Your task to perform on an android device: refresh tabs in the chrome app Image 0: 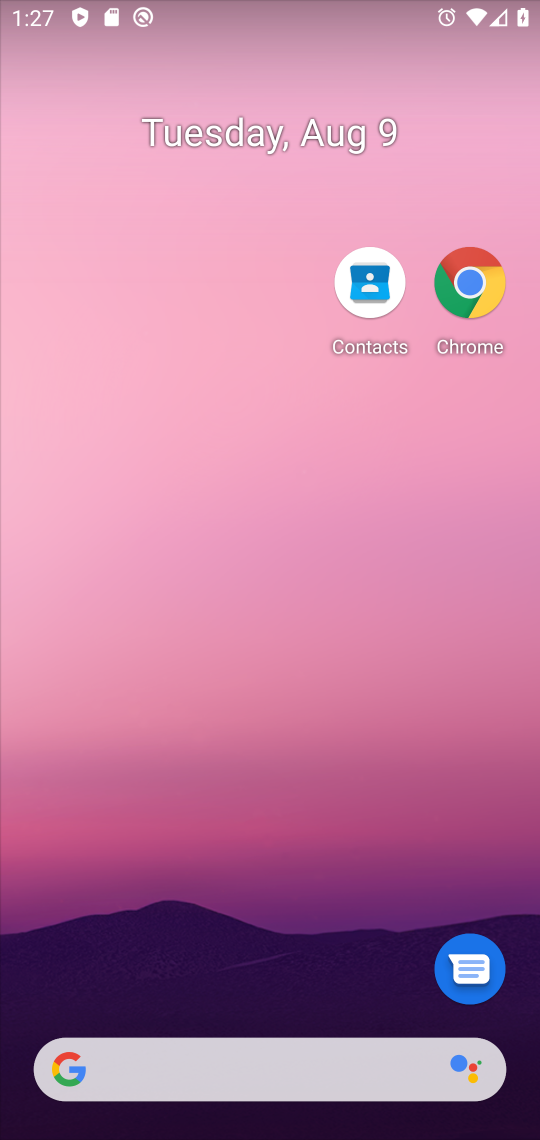
Step 0: click (281, 308)
Your task to perform on an android device: refresh tabs in the chrome app Image 1: 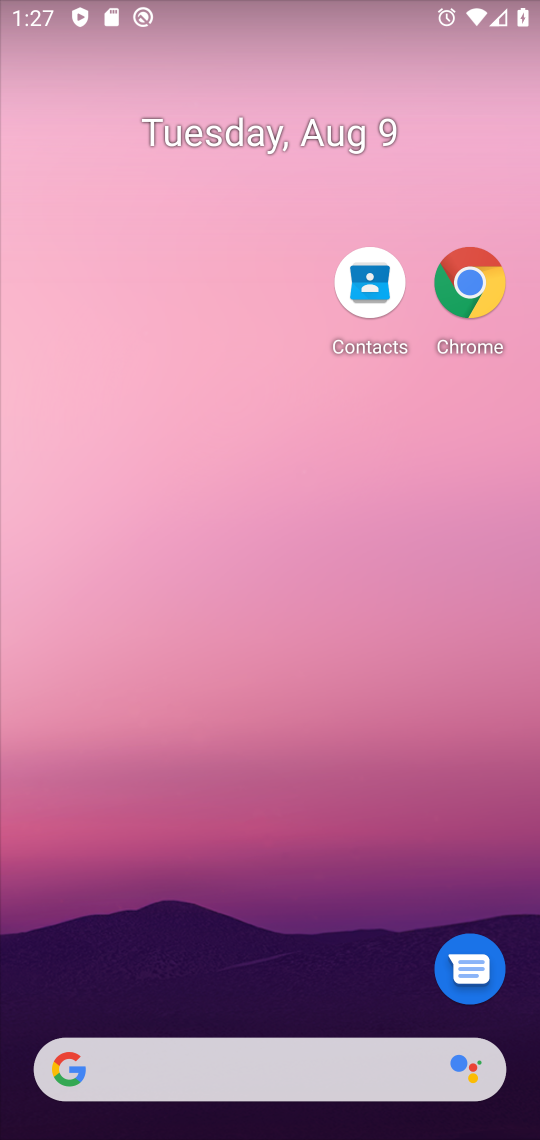
Step 1: click (473, 285)
Your task to perform on an android device: refresh tabs in the chrome app Image 2: 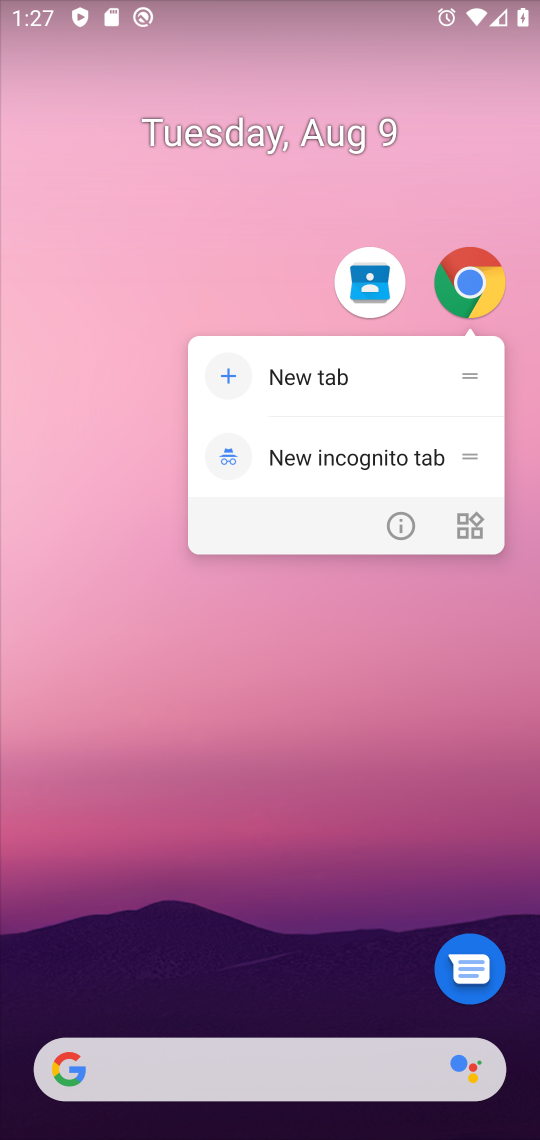
Step 2: click (407, 511)
Your task to perform on an android device: refresh tabs in the chrome app Image 3: 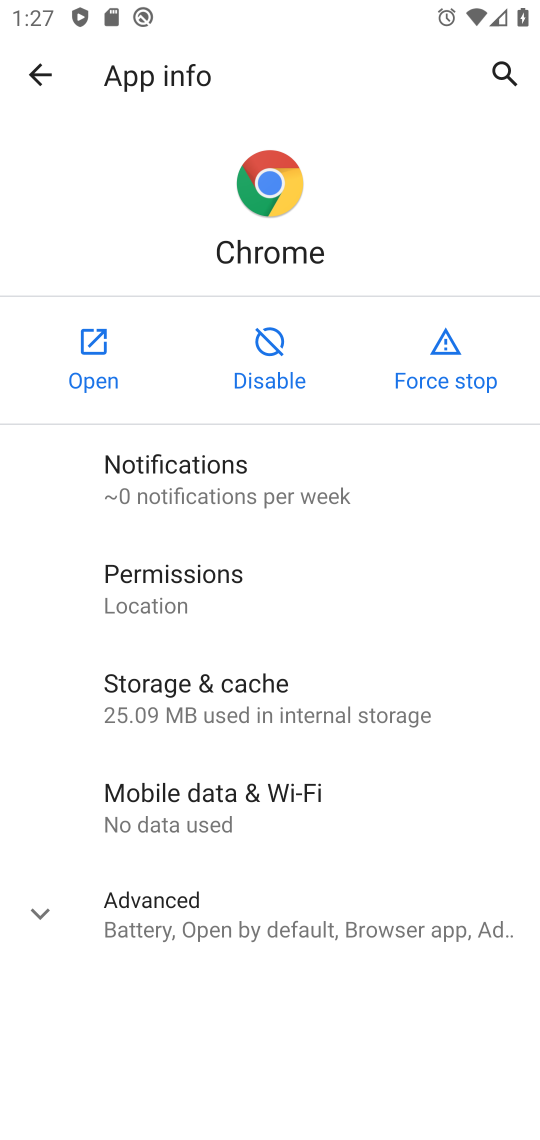
Step 3: click (105, 356)
Your task to perform on an android device: refresh tabs in the chrome app Image 4: 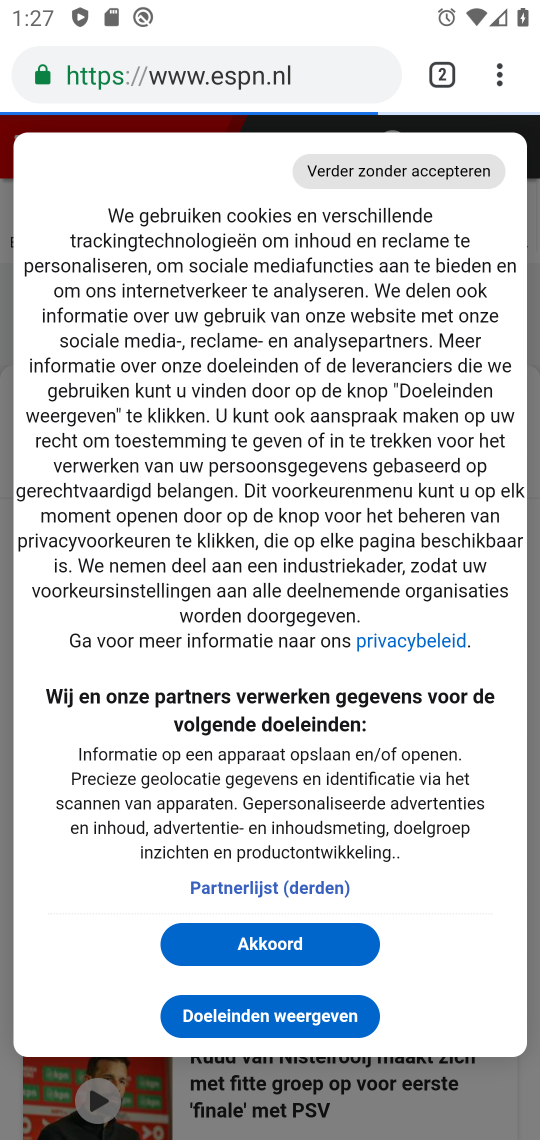
Step 4: drag from (285, 727) to (287, 388)
Your task to perform on an android device: refresh tabs in the chrome app Image 5: 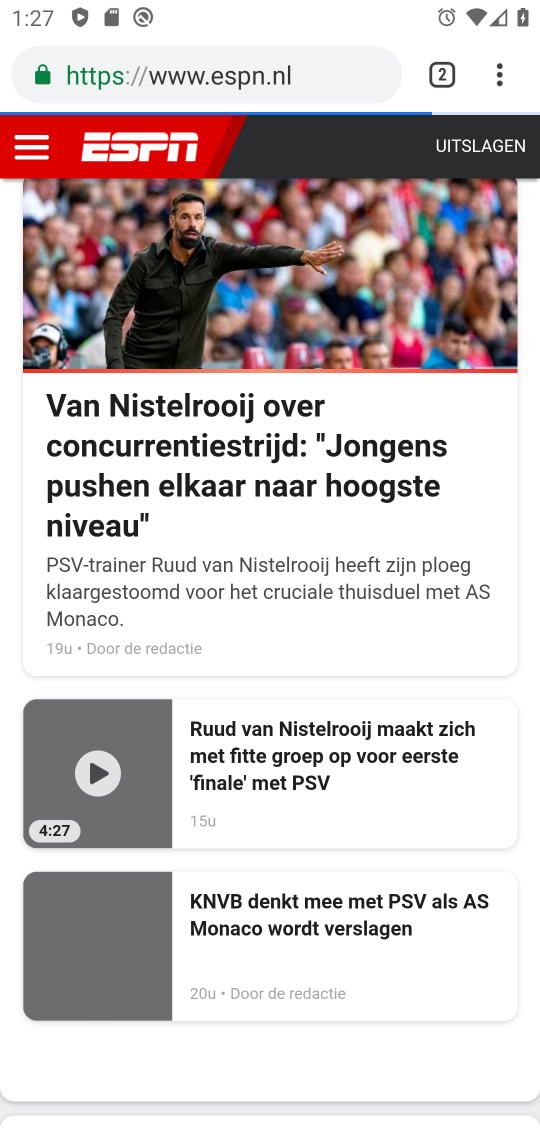
Step 5: click (500, 61)
Your task to perform on an android device: refresh tabs in the chrome app Image 6: 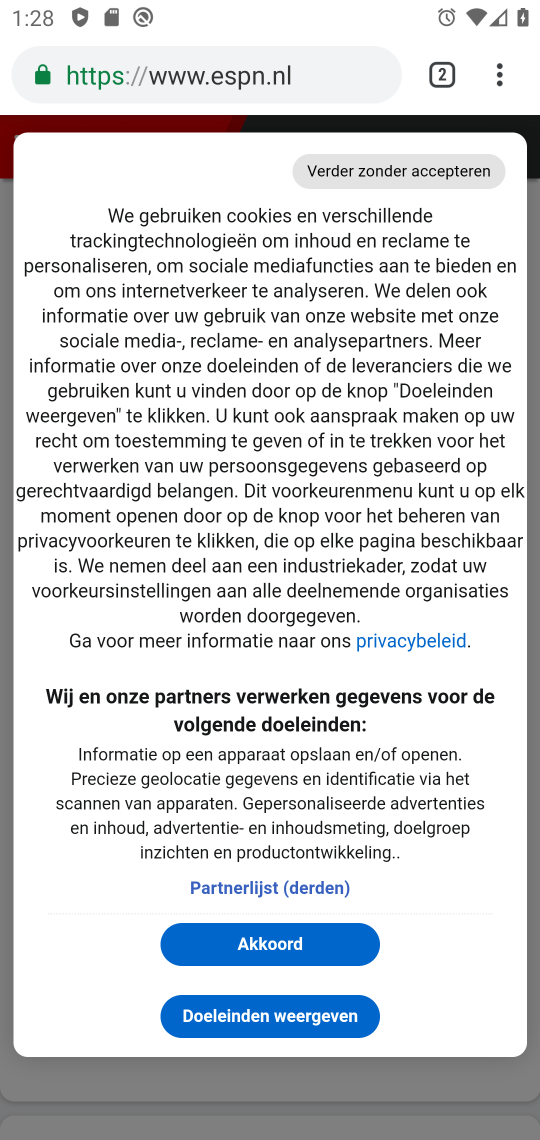
Step 6: click (492, 65)
Your task to perform on an android device: refresh tabs in the chrome app Image 7: 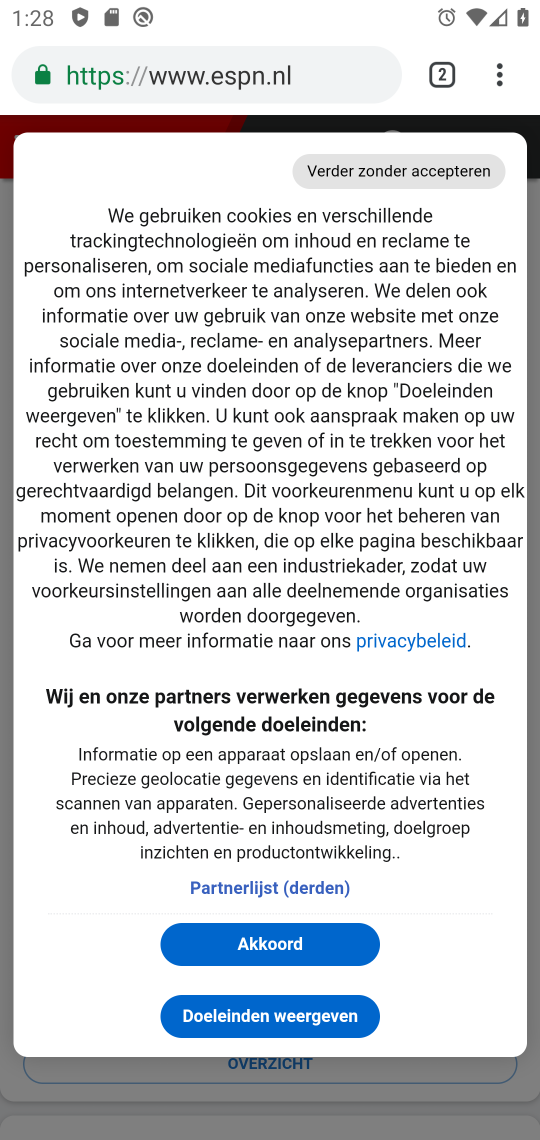
Step 7: task complete